Your task to perform on an android device: Open the stopwatch Image 0: 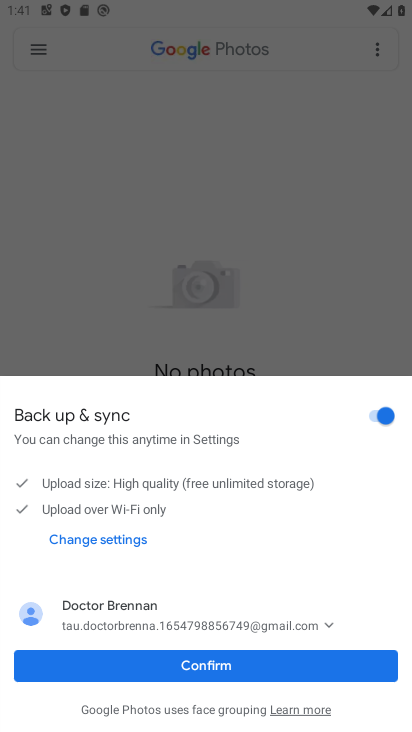
Step 0: press home button
Your task to perform on an android device: Open the stopwatch Image 1: 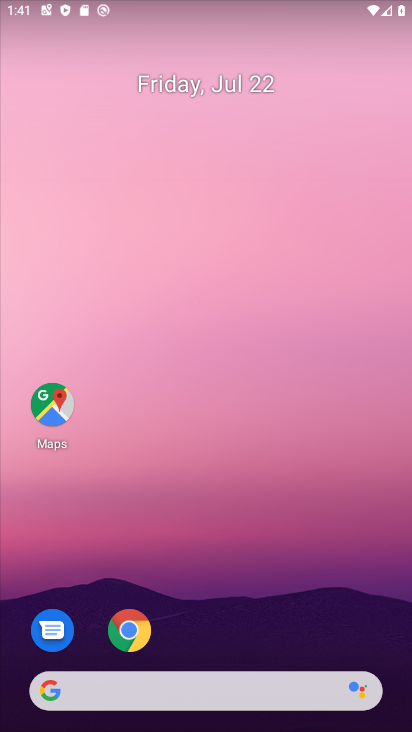
Step 1: drag from (186, 234) to (218, 131)
Your task to perform on an android device: Open the stopwatch Image 2: 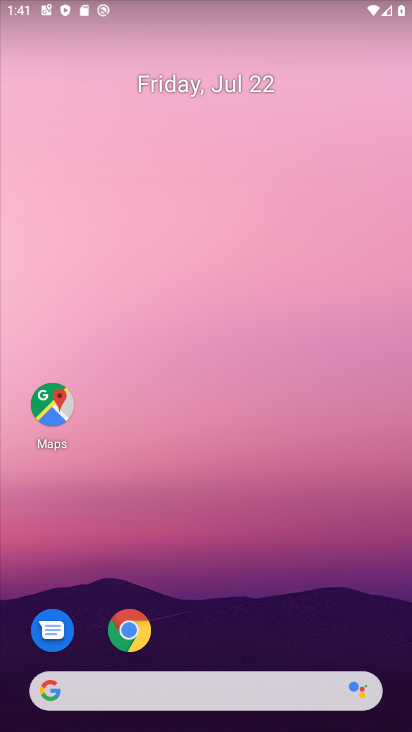
Step 2: drag from (203, 607) to (203, 80)
Your task to perform on an android device: Open the stopwatch Image 3: 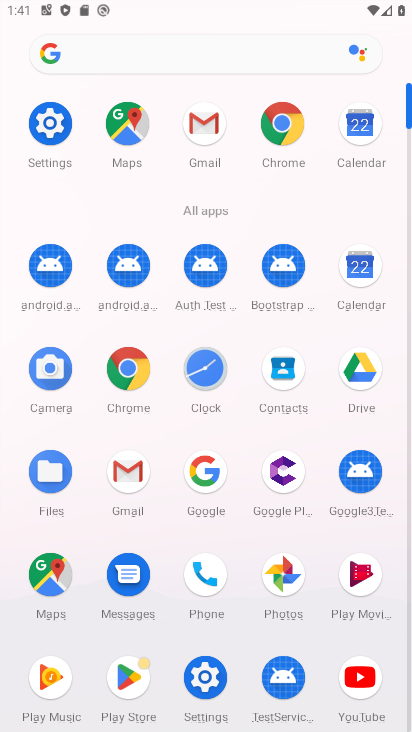
Step 3: click (211, 375)
Your task to perform on an android device: Open the stopwatch Image 4: 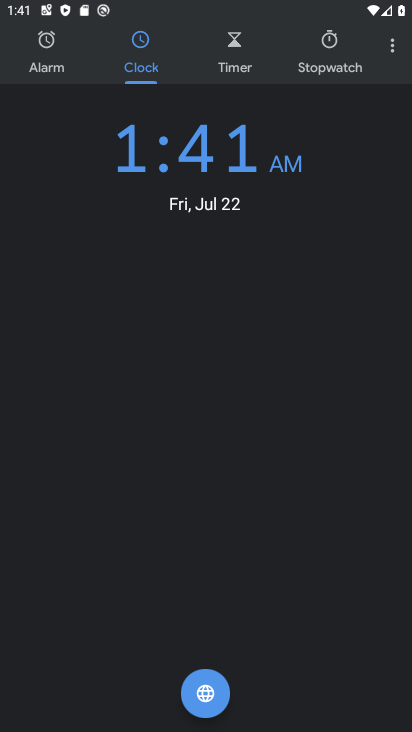
Step 4: click (327, 69)
Your task to perform on an android device: Open the stopwatch Image 5: 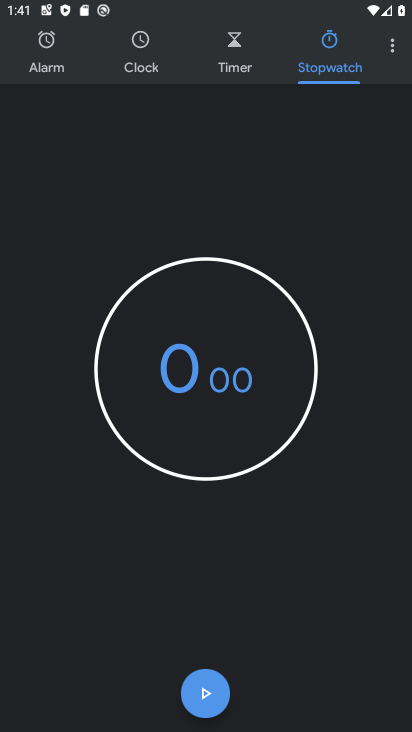
Step 5: task complete